Your task to perform on an android device: Go to network settings Image 0: 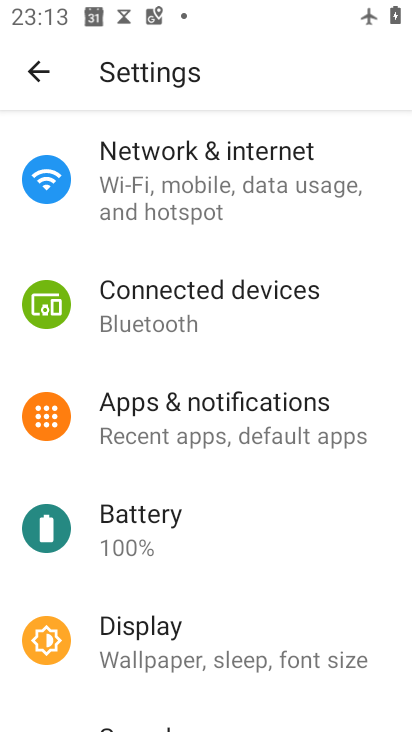
Step 0: click (228, 180)
Your task to perform on an android device: Go to network settings Image 1: 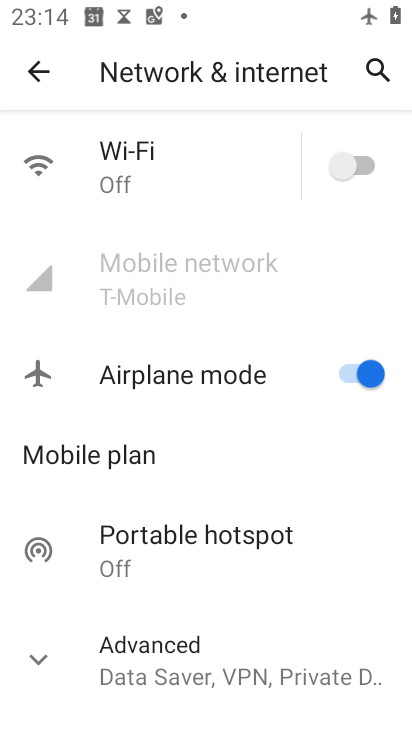
Step 1: task complete